Your task to perform on an android device: What's a good restaurant in New York? Image 0: 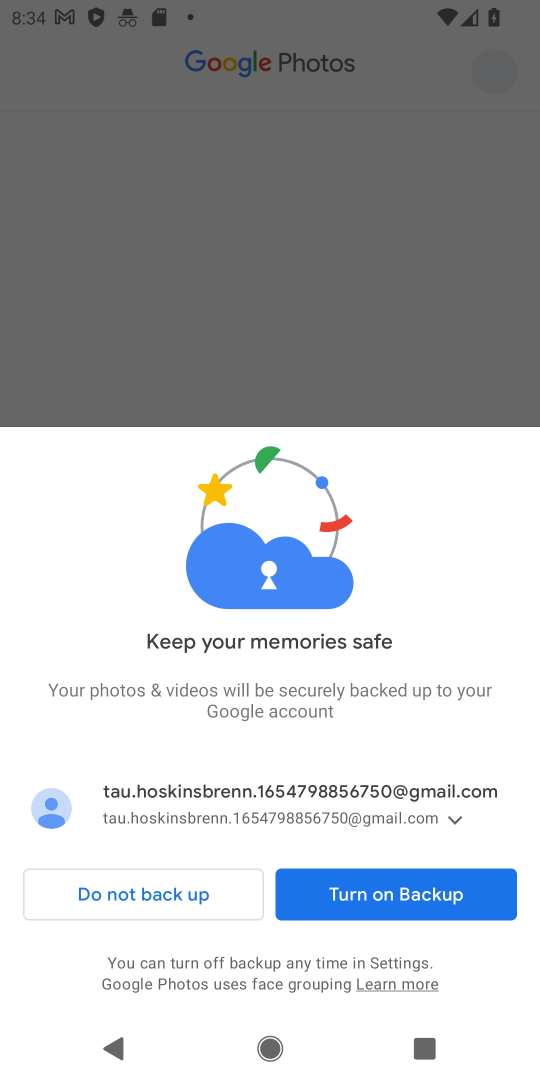
Step 0: press home button
Your task to perform on an android device: What's a good restaurant in New York? Image 1: 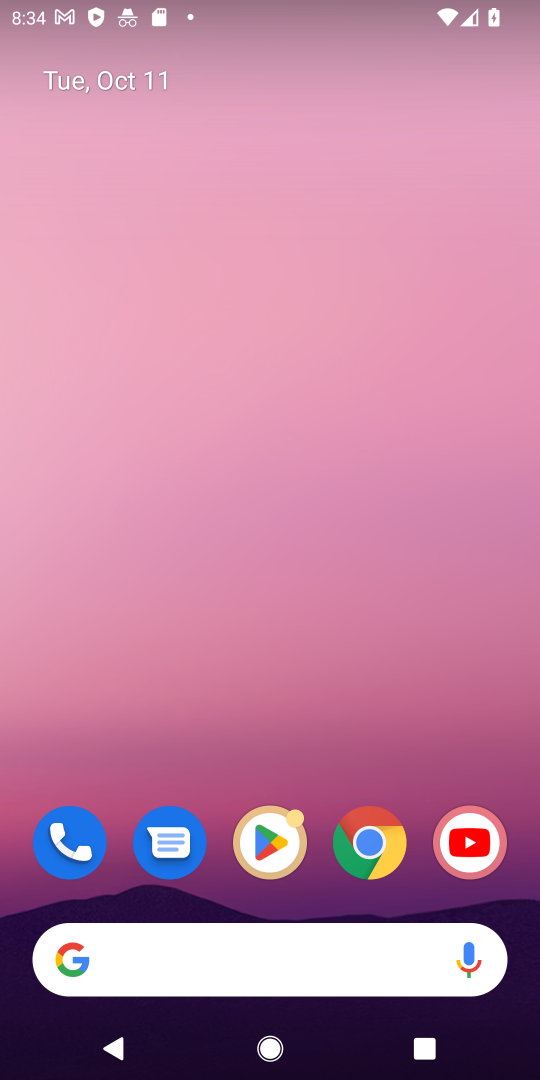
Step 1: click (264, 962)
Your task to perform on an android device: What's a good restaurant in New York? Image 2: 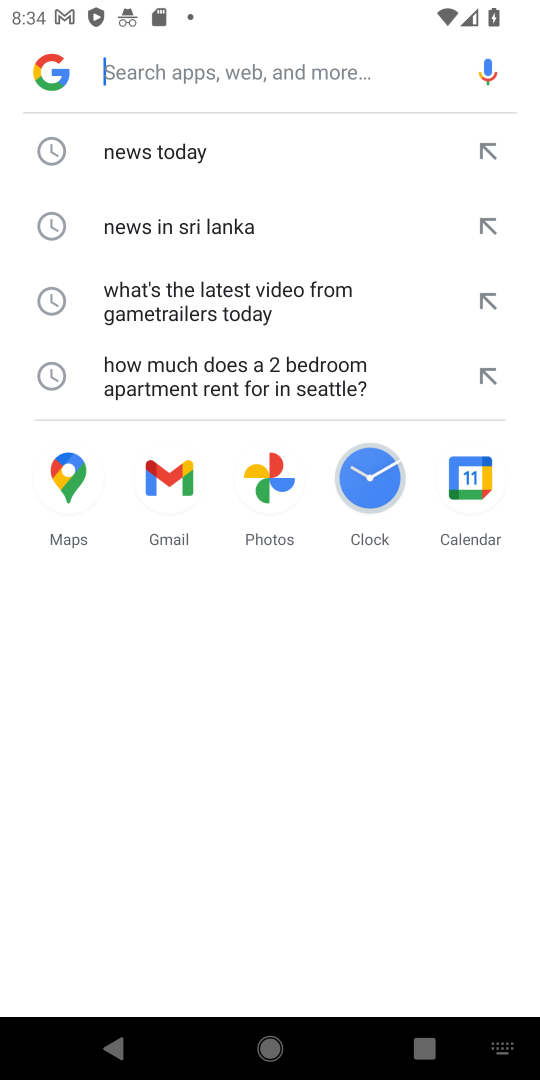
Step 2: type "What's a good restaurant in New York?"
Your task to perform on an android device: What's a good restaurant in New York? Image 3: 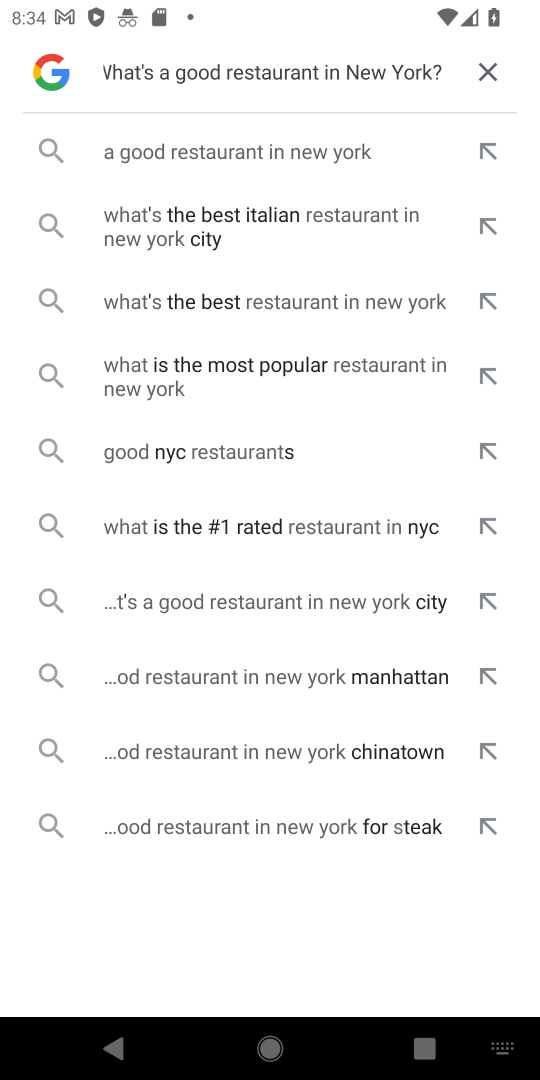
Step 3: click (285, 152)
Your task to perform on an android device: What's a good restaurant in New York? Image 4: 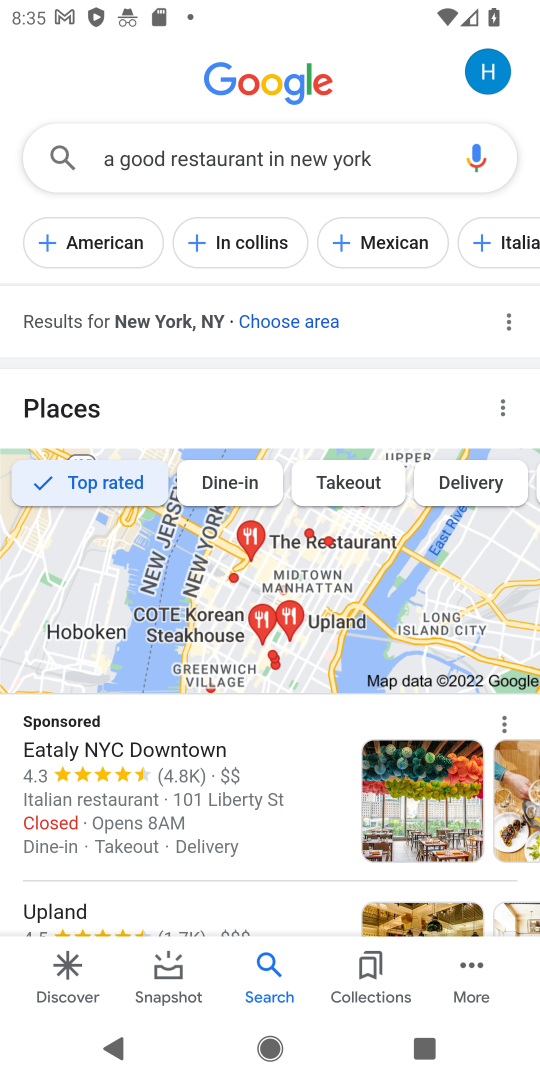
Step 4: task complete